Your task to perform on an android device: Open Chrome and go to the settings page Image 0: 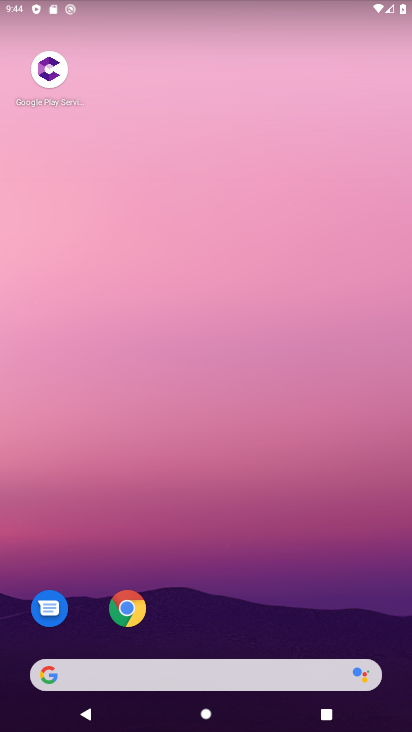
Step 0: drag from (159, 594) to (129, 176)
Your task to perform on an android device: Open Chrome and go to the settings page Image 1: 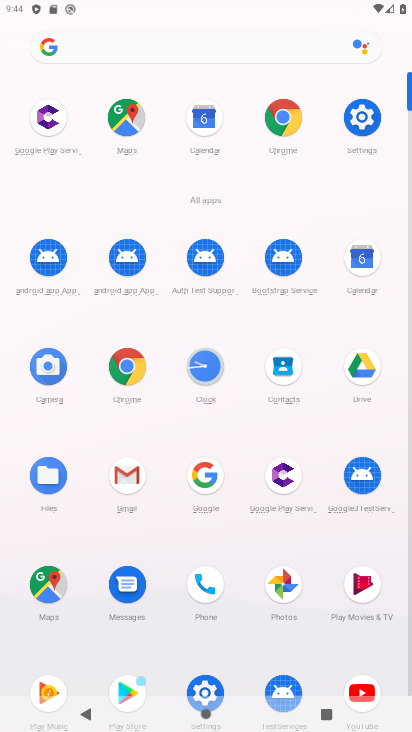
Step 1: click (283, 118)
Your task to perform on an android device: Open Chrome and go to the settings page Image 2: 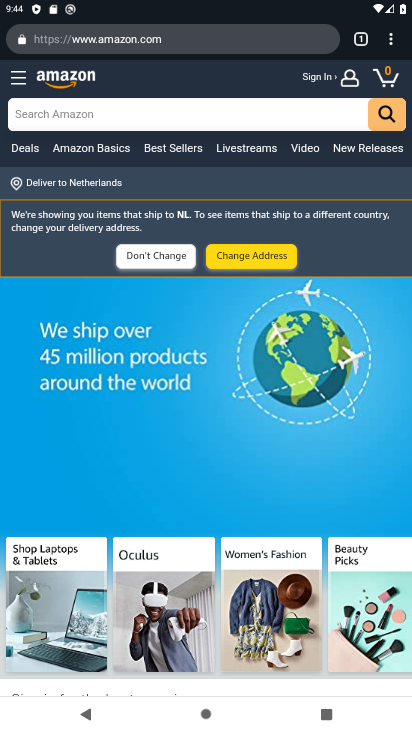
Step 2: click (395, 34)
Your task to perform on an android device: Open Chrome and go to the settings page Image 3: 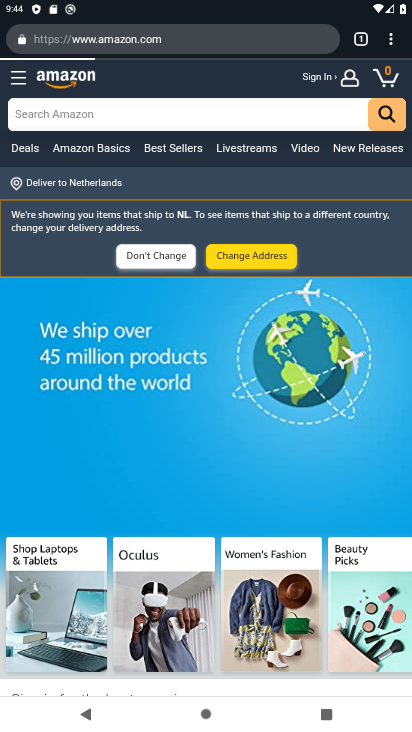
Step 3: click (396, 36)
Your task to perform on an android device: Open Chrome and go to the settings page Image 4: 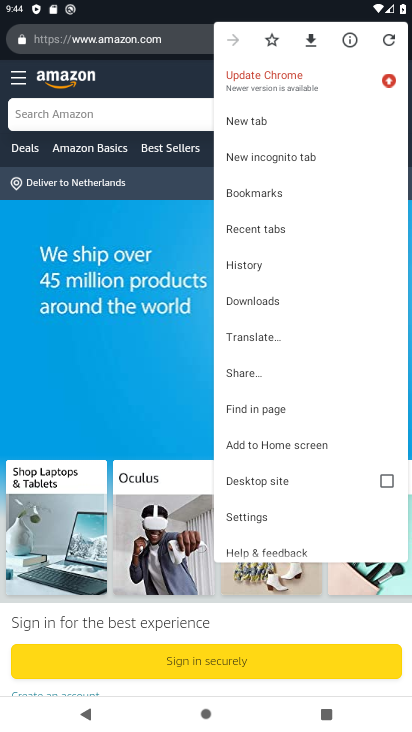
Step 4: click (263, 520)
Your task to perform on an android device: Open Chrome and go to the settings page Image 5: 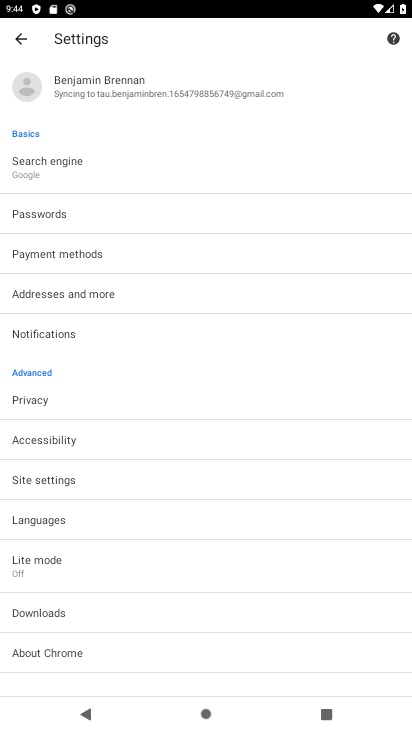
Step 5: task complete